Your task to perform on an android device: allow notifications from all sites in the chrome app Image 0: 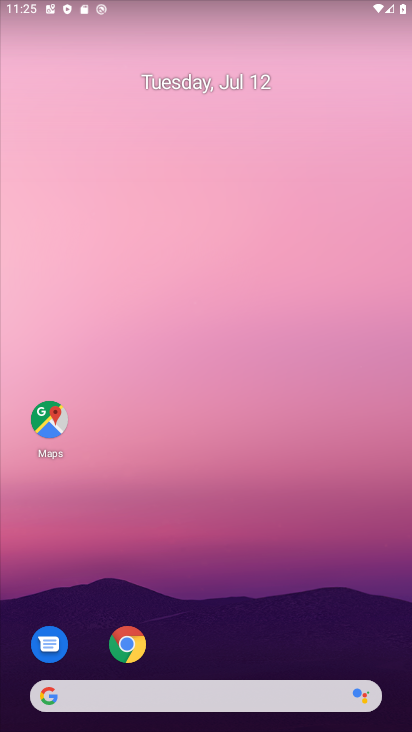
Step 0: click (124, 652)
Your task to perform on an android device: allow notifications from all sites in the chrome app Image 1: 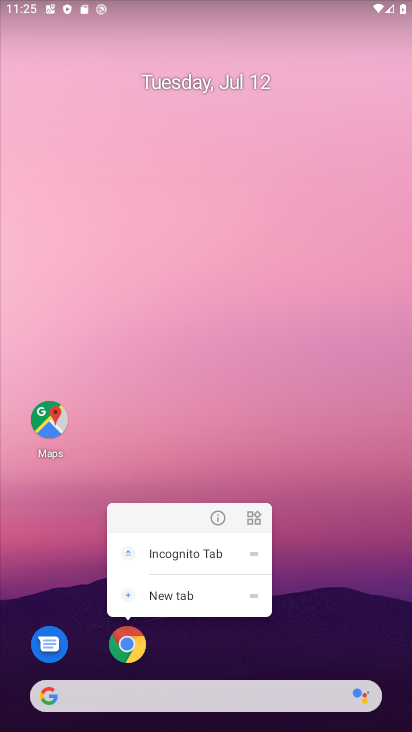
Step 1: click (124, 652)
Your task to perform on an android device: allow notifications from all sites in the chrome app Image 2: 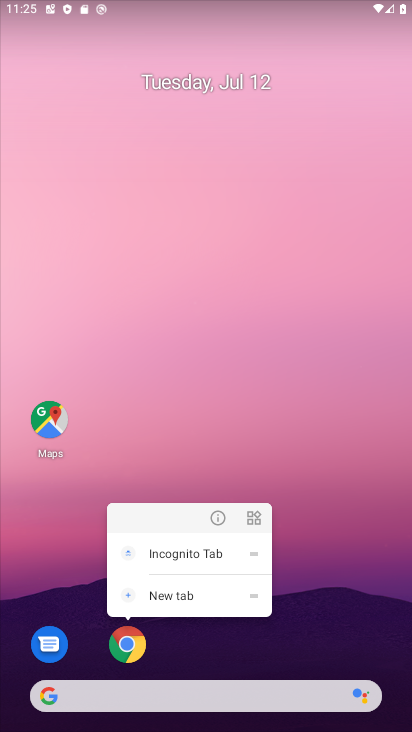
Step 2: click (124, 652)
Your task to perform on an android device: allow notifications from all sites in the chrome app Image 3: 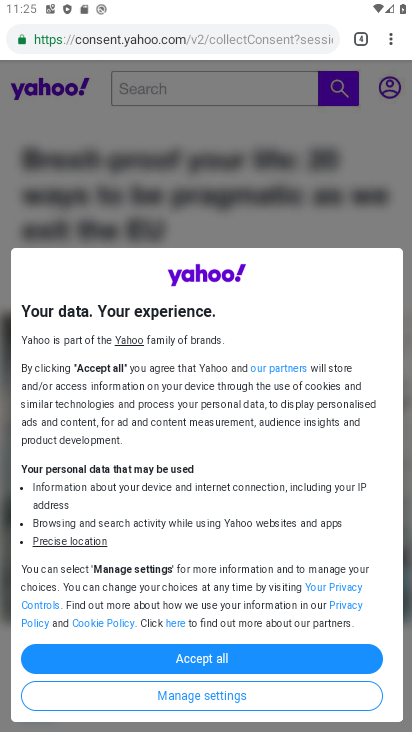
Step 3: click (387, 34)
Your task to perform on an android device: allow notifications from all sites in the chrome app Image 4: 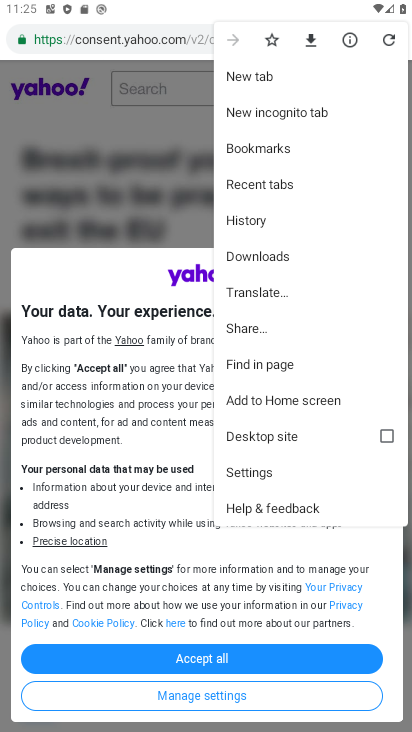
Step 4: click (277, 471)
Your task to perform on an android device: allow notifications from all sites in the chrome app Image 5: 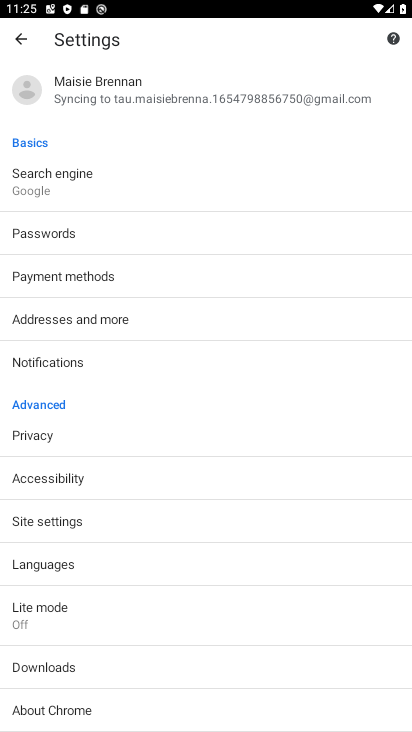
Step 5: click (67, 363)
Your task to perform on an android device: allow notifications from all sites in the chrome app Image 6: 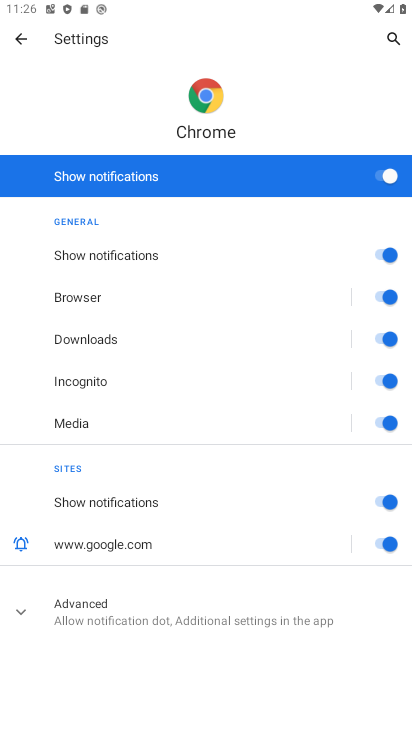
Step 6: click (231, 622)
Your task to perform on an android device: allow notifications from all sites in the chrome app Image 7: 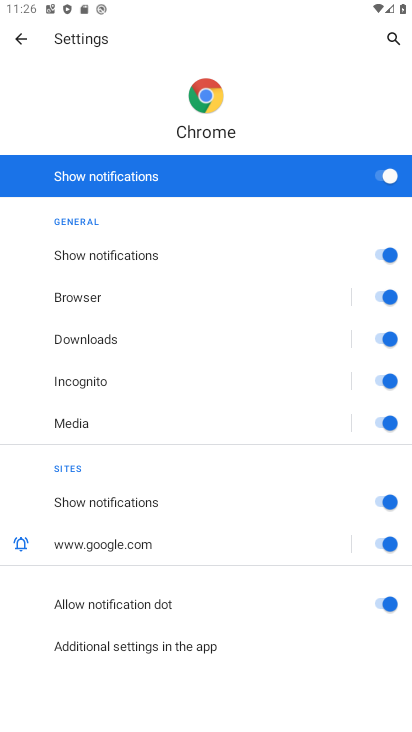
Step 7: task complete